Your task to perform on an android device: Is it going to rain today? Image 0: 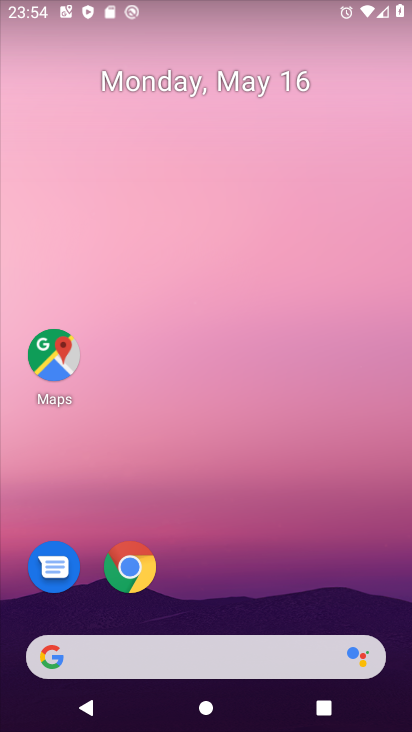
Step 0: drag from (266, 508) to (188, 144)
Your task to perform on an android device: Is it going to rain today? Image 1: 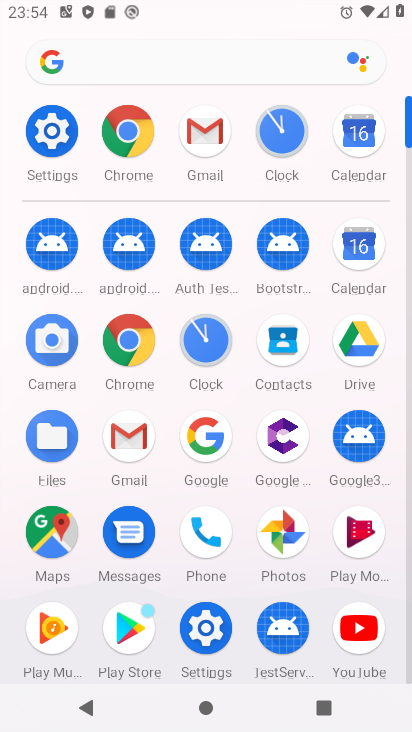
Step 1: click (75, 66)
Your task to perform on an android device: Is it going to rain today? Image 2: 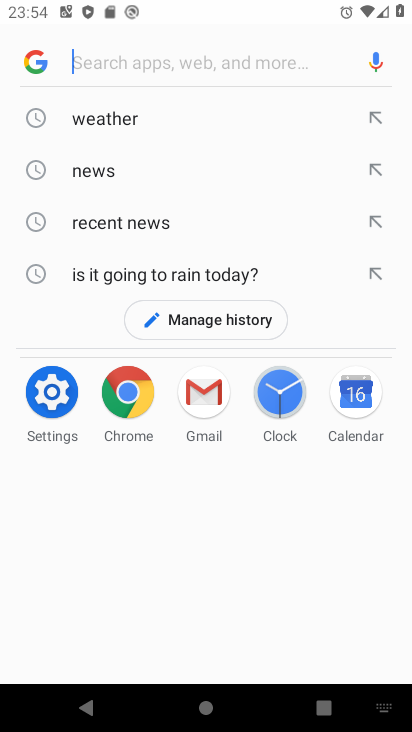
Step 2: click (110, 116)
Your task to perform on an android device: Is it going to rain today? Image 3: 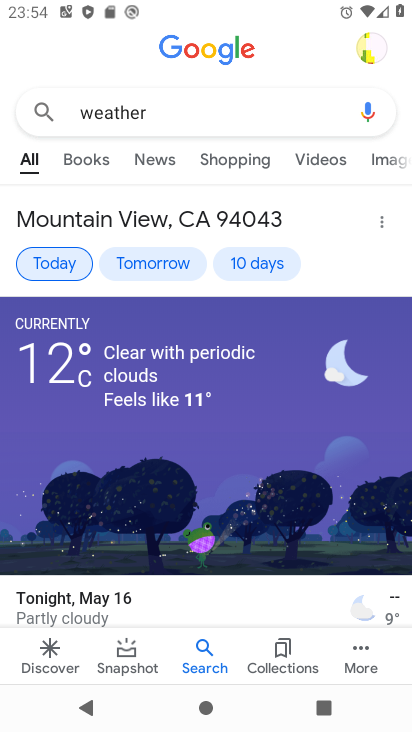
Step 3: task complete